Your task to perform on an android device: What's the weather going to be this weekend? Image 0: 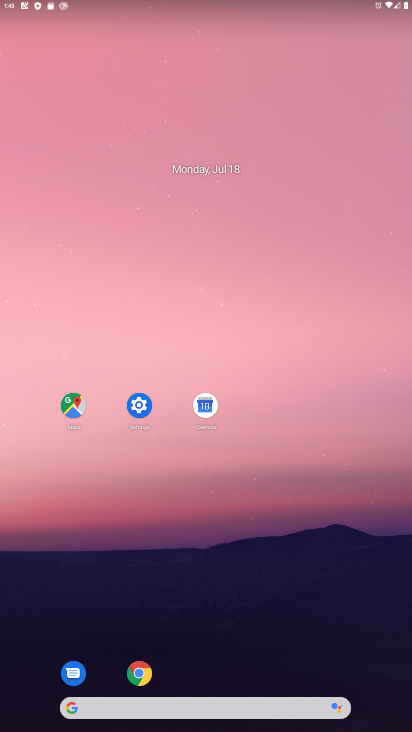
Step 0: drag from (2, 199) to (411, 215)
Your task to perform on an android device: What's the weather going to be this weekend? Image 1: 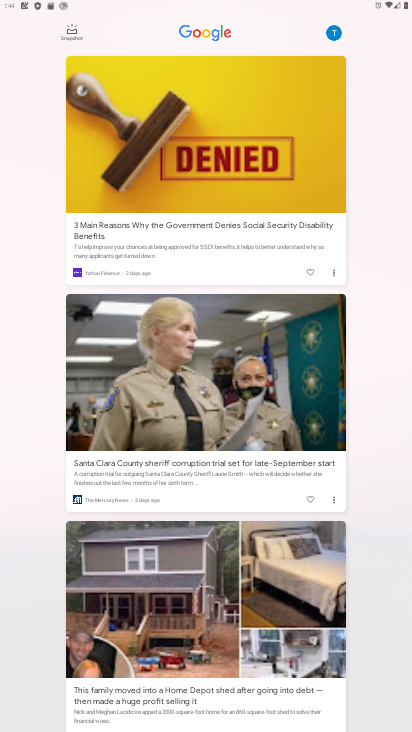
Step 1: task complete